Your task to perform on an android device: Open Yahoo.com Image 0: 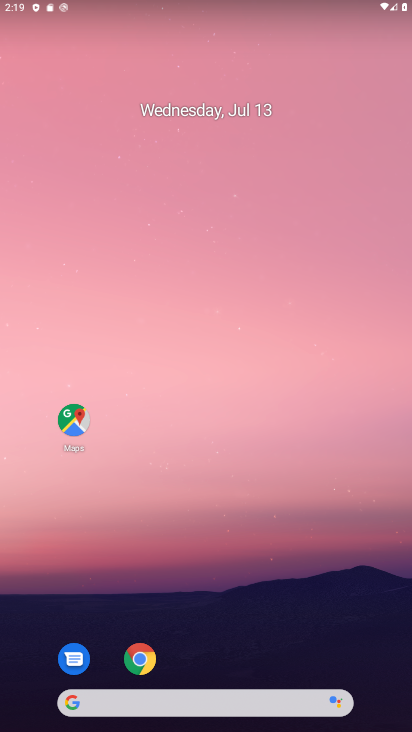
Step 0: drag from (193, 597) to (193, 276)
Your task to perform on an android device: Open Yahoo.com Image 1: 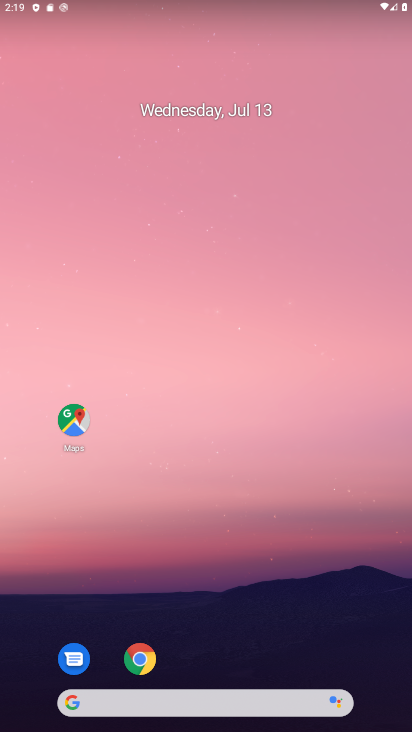
Step 1: drag from (308, 651) to (297, 263)
Your task to perform on an android device: Open Yahoo.com Image 2: 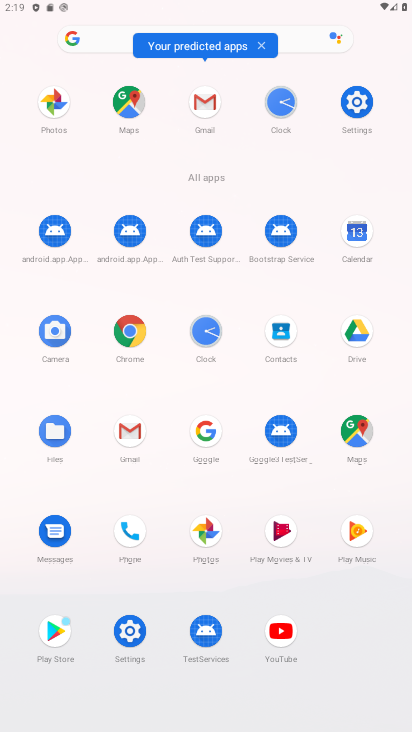
Step 2: click (121, 333)
Your task to perform on an android device: Open Yahoo.com Image 3: 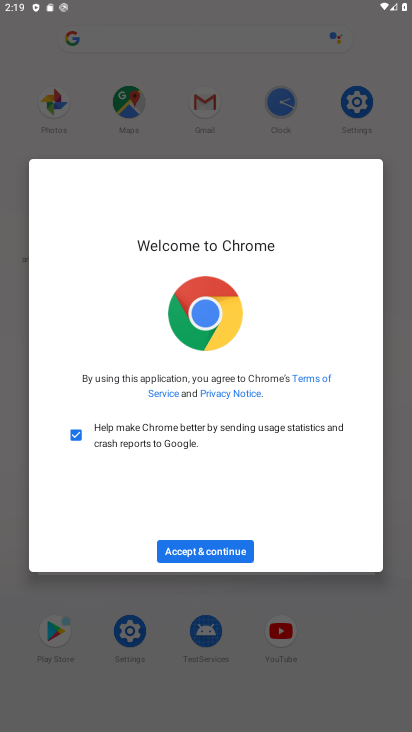
Step 3: click (227, 545)
Your task to perform on an android device: Open Yahoo.com Image 4: 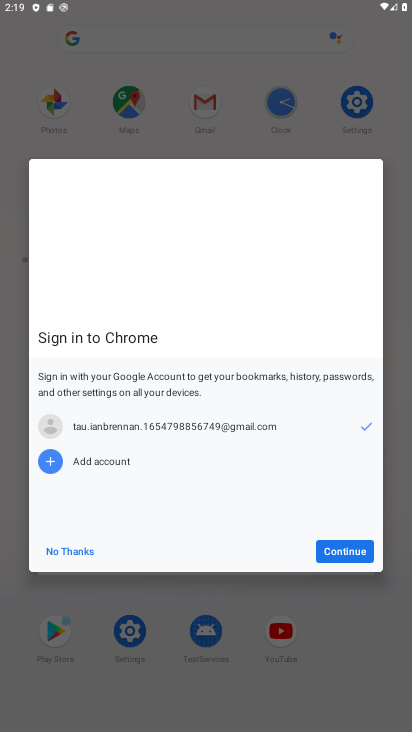
Step 4: click (337, 549)
Your task to perform on an android device: Open Yahoo.com Image 5: 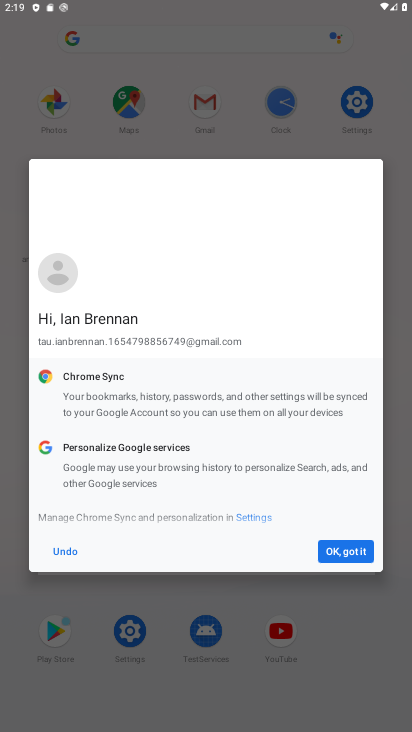
Step 5: click (341, 551)
Your task to perform on an android device: Open Yahoo.com Image 6: 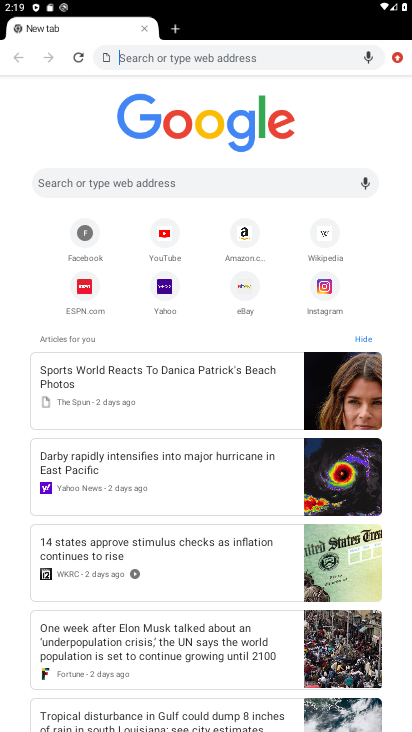
Step 6: click (172, 283)
Your task to perform on an android device: Open Yahoo.com Image 7: 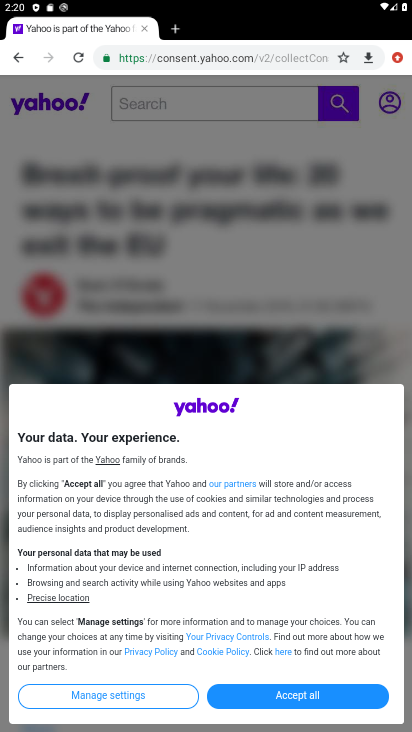
Step 7: task complete